Your task to perform on an android device: open app "Grab" (install if not already installed) and enter user name: "interspersion@gmail.com" and password: "aristocrats" Image 0: 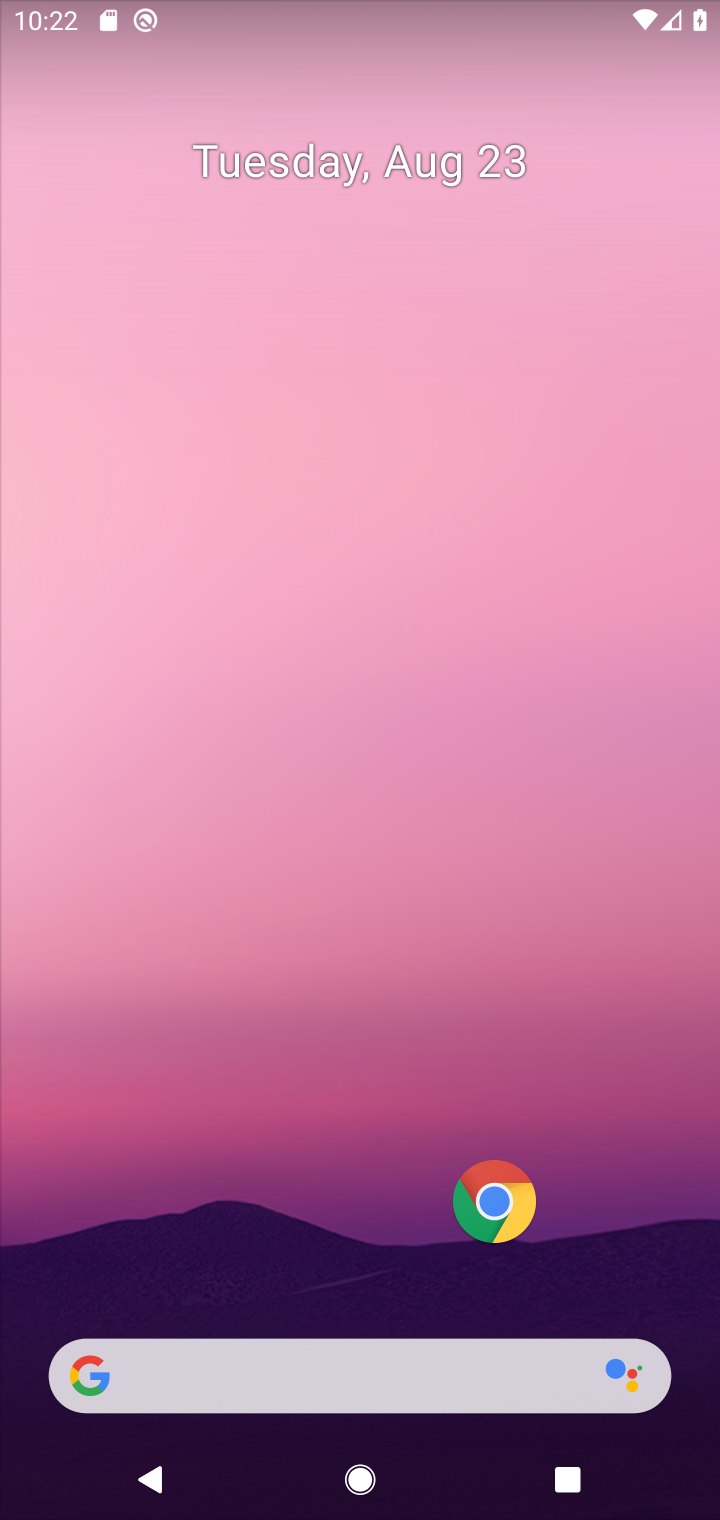
Step 0: drag from (458, 451) to (462, 378)
Your task to perform on an android device: open app "Grab" (install if not already installed) and enter user name: "interspersion@gmail.com" and password: "aristocrats" Image 1: 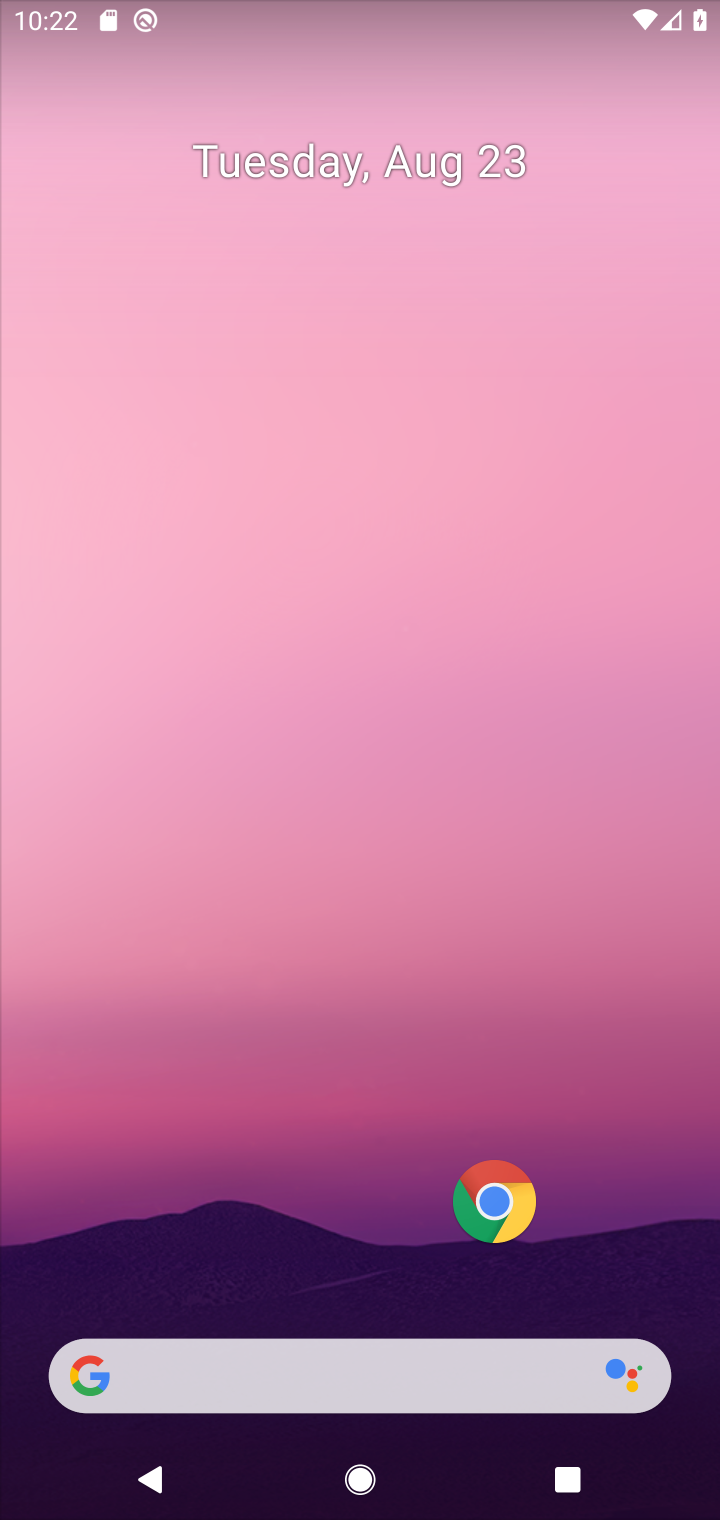
Step 1: drag from (224, 1265) to (262, 431)
Your task to perform on an android device: open app "Grab" (install if not already installed) and enter user name: "interspersion@gmail.com" and password: "aristocrats" Image 2: 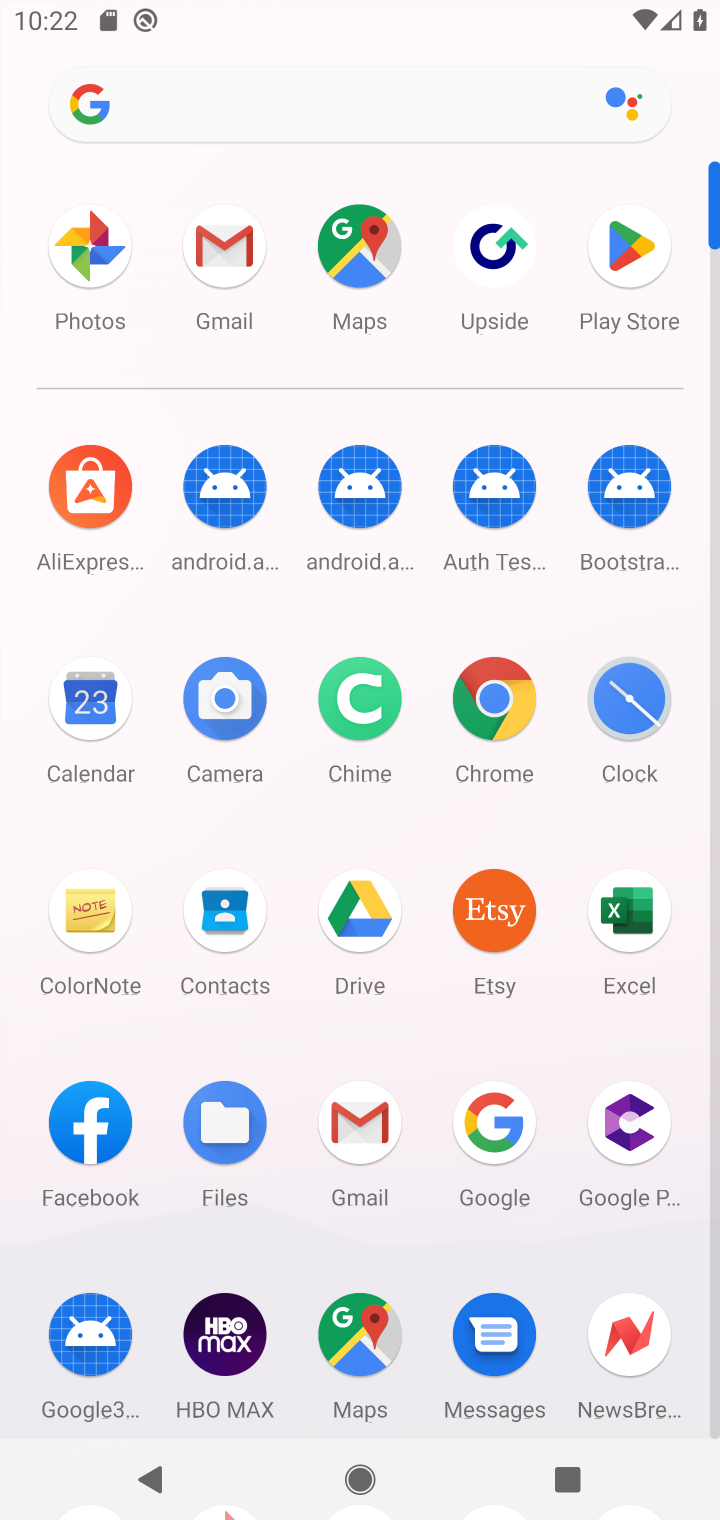
Step 2: click (612, 236)
Your task to perform on an android device: open app "Grab" (install if not already installed) and enter user name: "interspersion@gmail.com" and password: "aristocrats" Image 3: 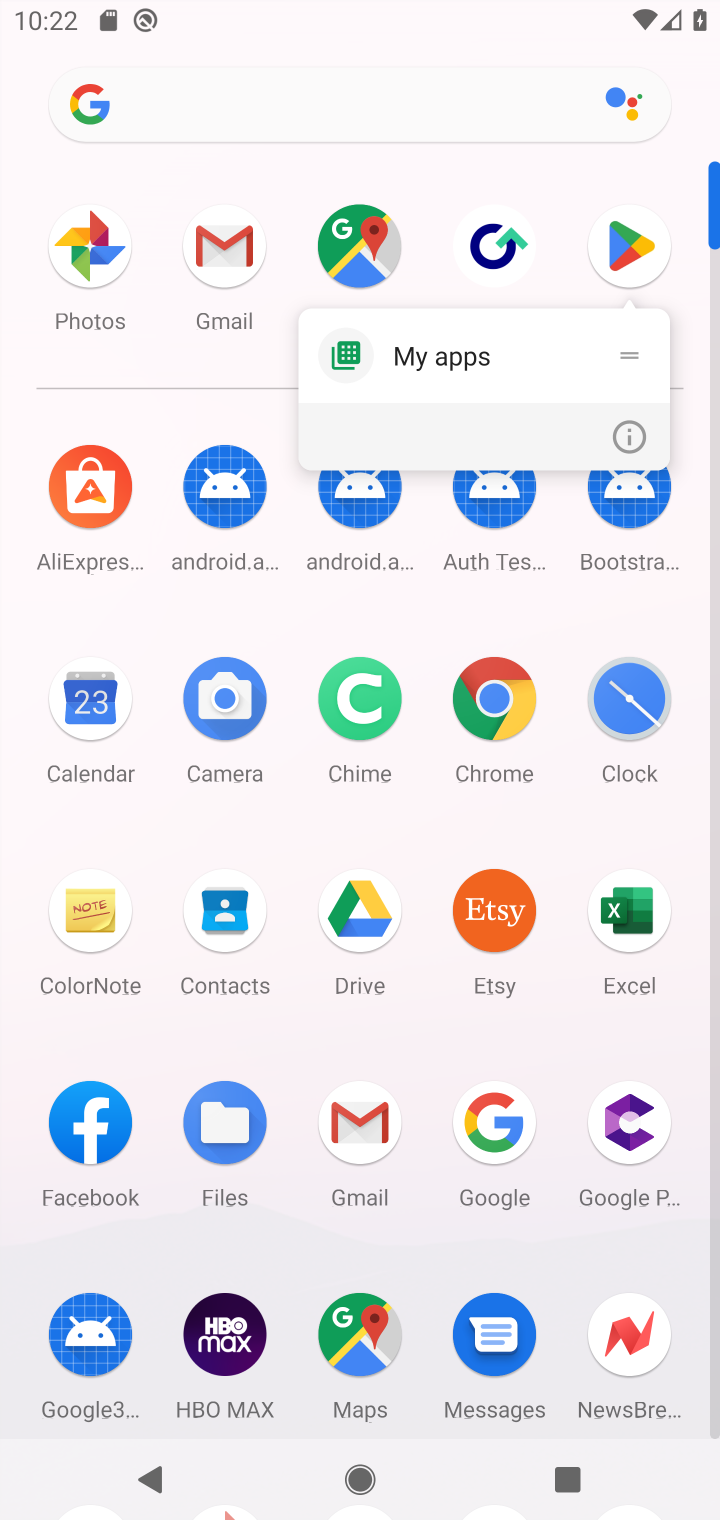
Step 3: click (642, 241)
Your task to perform on an android device: open app "Grab" (install if not already installed) and enter user name: "interspersion@gmail.com" and password: "aristocrats" Image 4: 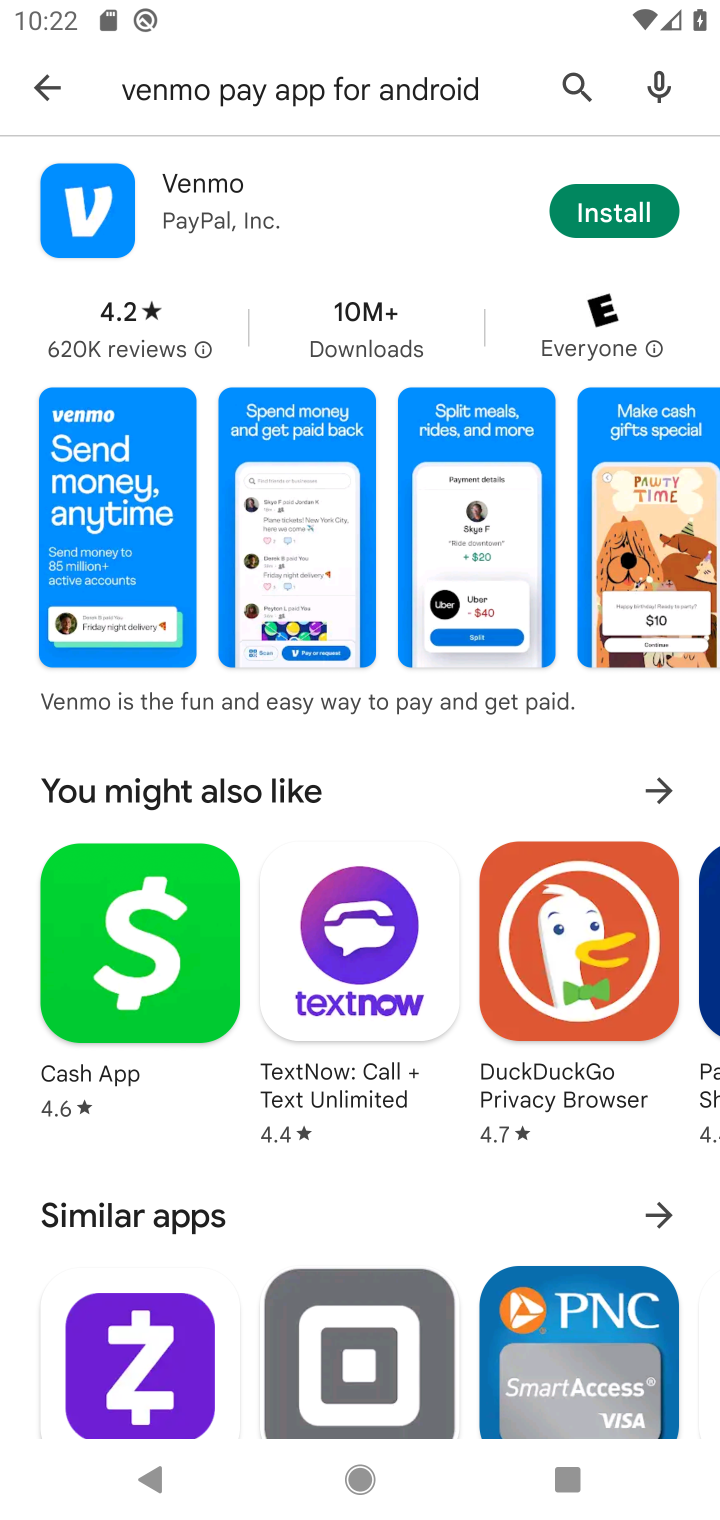
Step 4: click (66, 83)
Your task to perform on an android device: open app "Grab" (install if not already installed) and enter user name: "interspersion@gmail.com" and password: "aristocrats" Image 5: 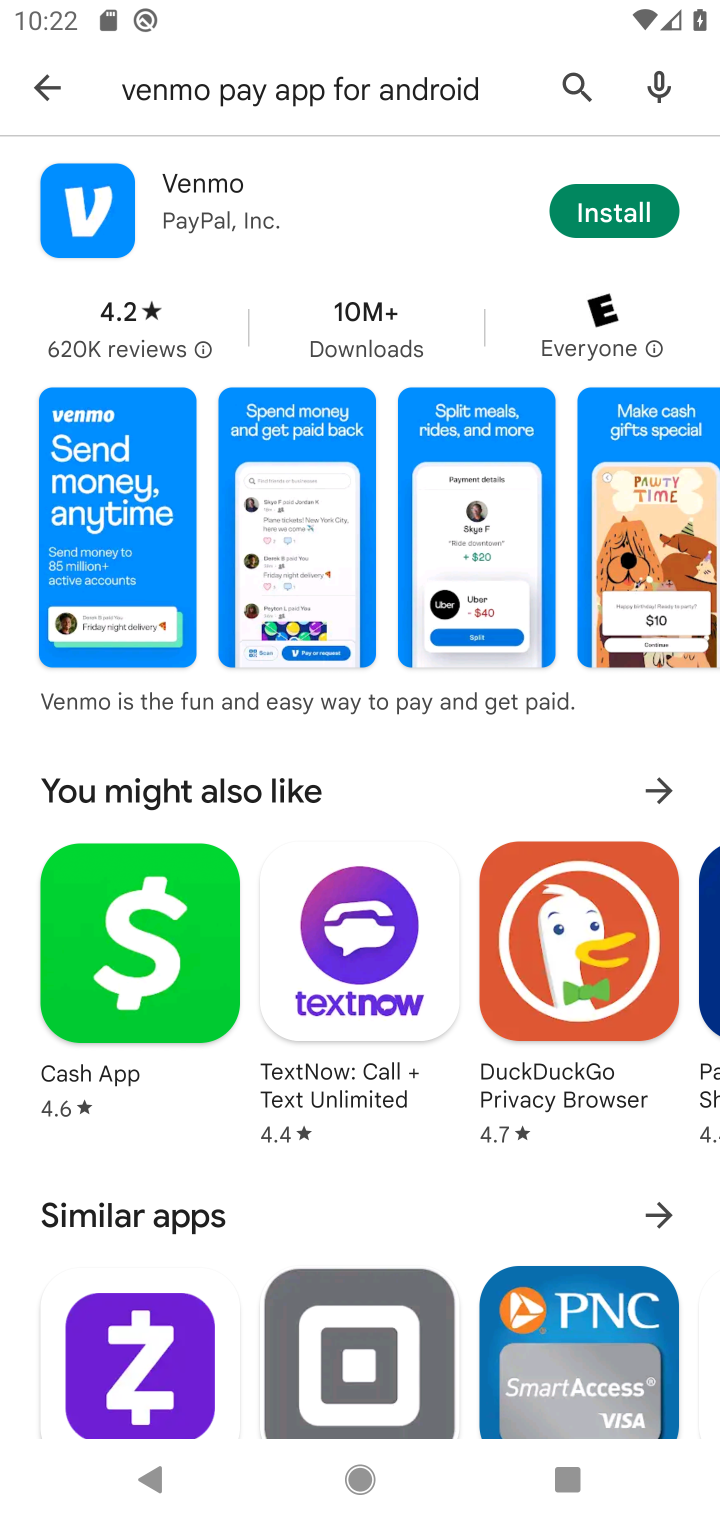
Step 5: click (573, 74)
Your task to perform on an android device: open app "Grab" (install if not already installed) and enter user name: "interspersion@gmail.com" and password: "aristocrats" Image 6: 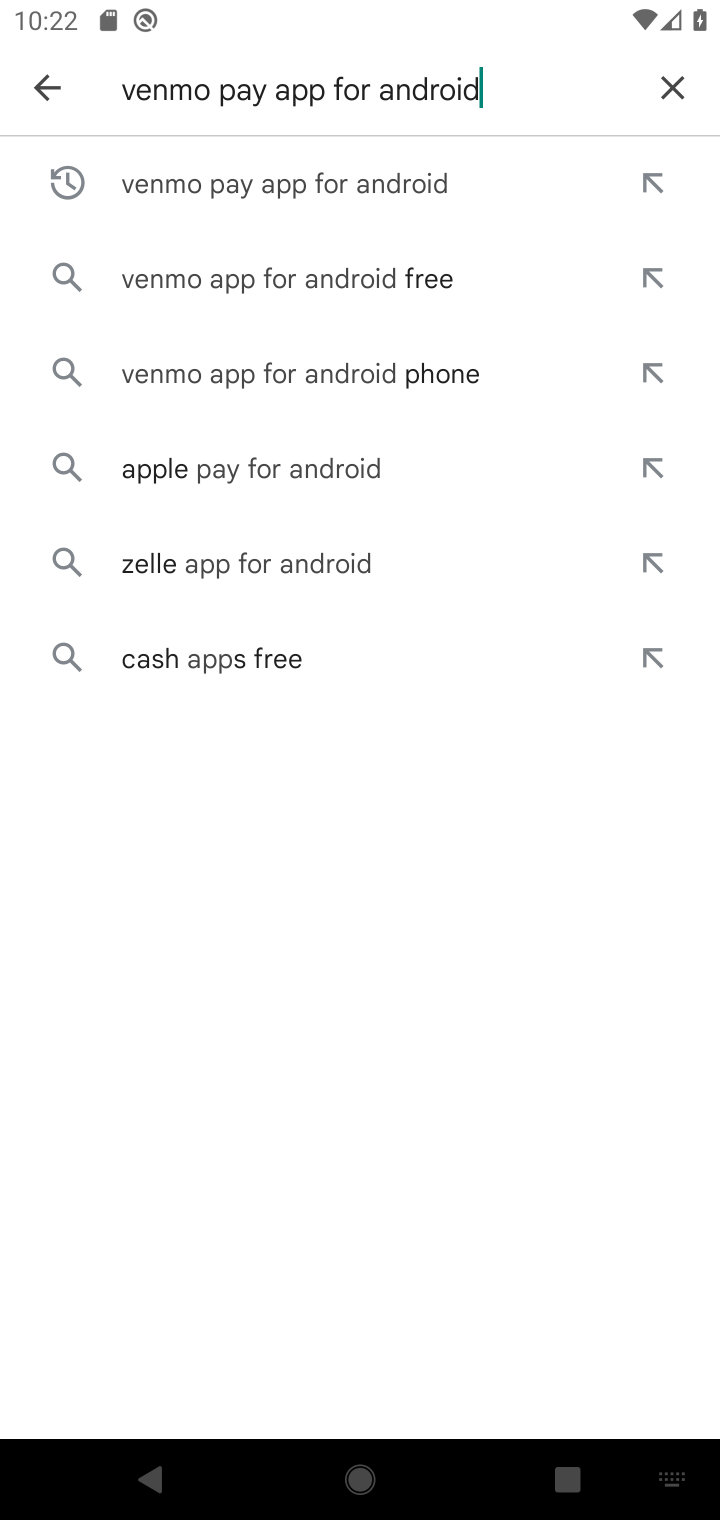
Step 6: click (675, 80)
Your task to perform on an android device: open app "Grab" (install if not already installed) and enter user name: "interspersion@gmail.com" and password: "aristocrats" Image 7: 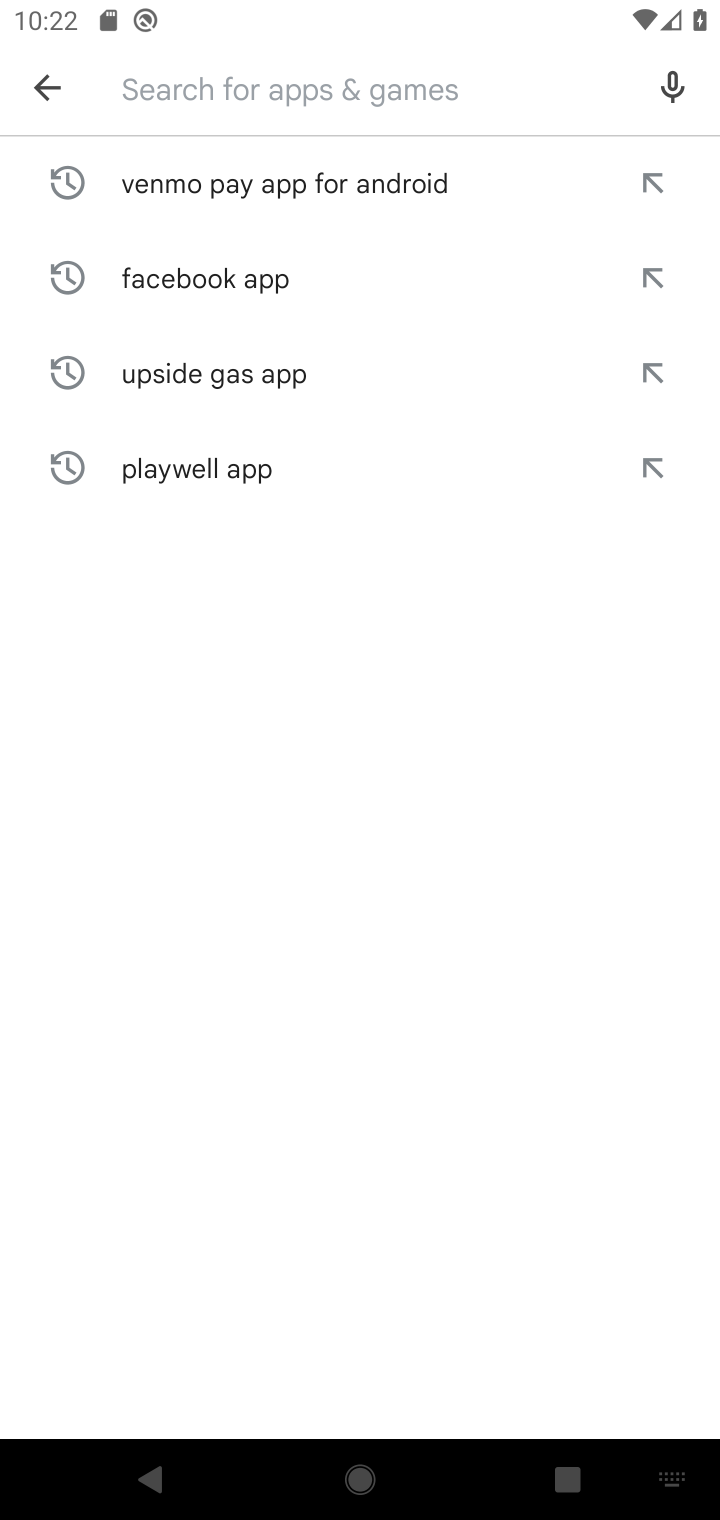
Step 7: click (340, 93)
Your task to perform on an android device: open app "Grab" (install if not already installed) and enter user name: "interspersion@gmail.com" and password: "aristocrats" Image 8: 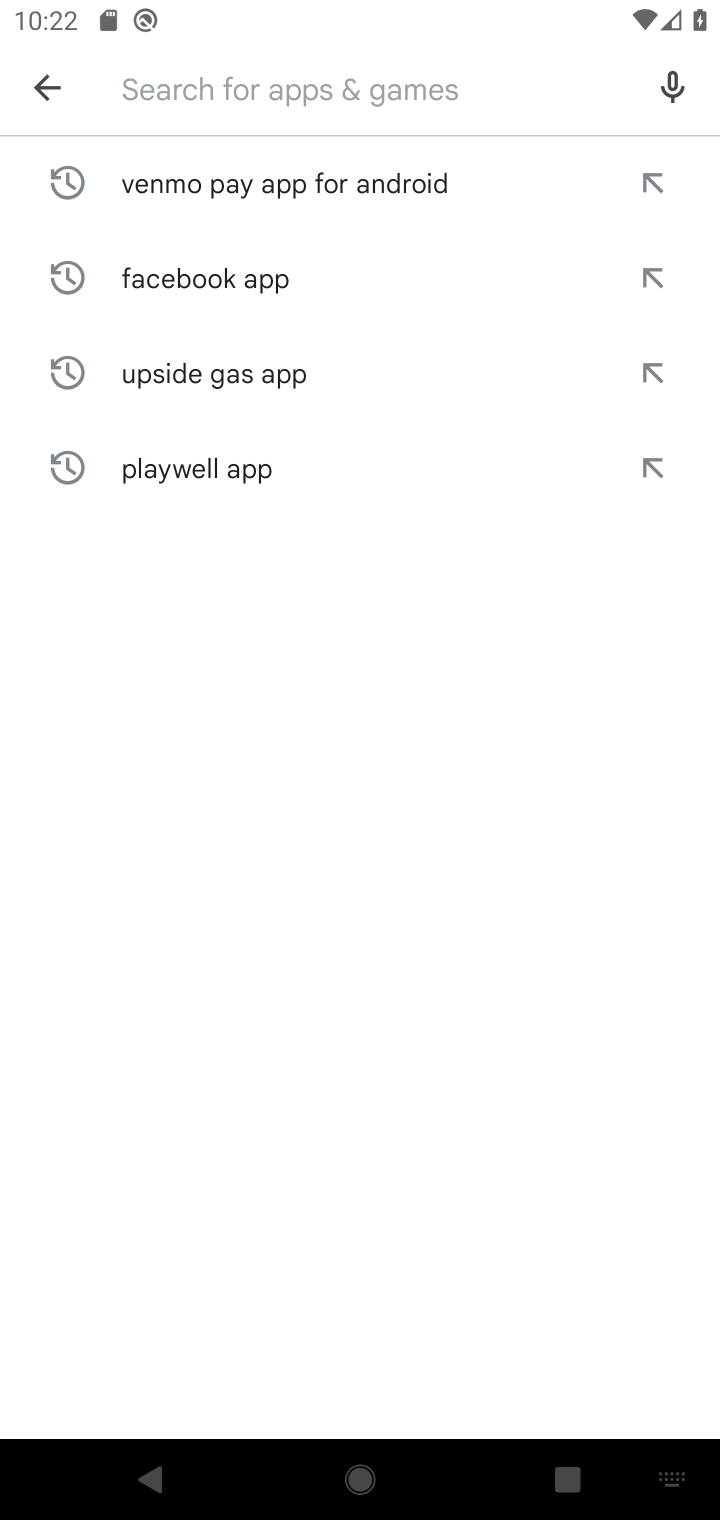
Step 8: type "Grab "
Your task to perform on an android device: open app "Grab" (install if not already installed) and enter user name: "interspersion@gmail.com" and password: "aristocrats" Image 9: 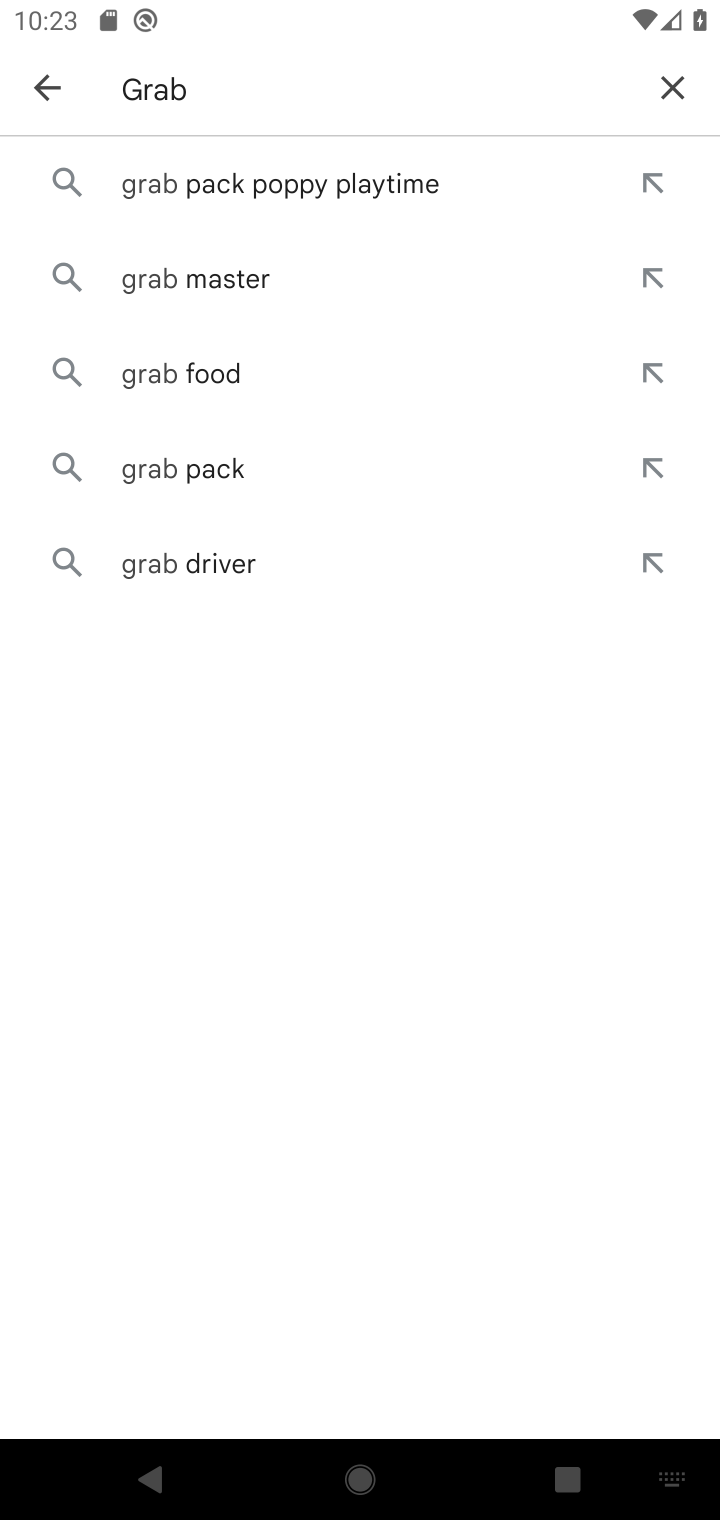
Step 9: click (258, 194)
Your task to perform on an android device: open app "Grab" (install if not already installed) and enter user name: "interspersion@gmail.com" and password: "aristocrats" Image 10: 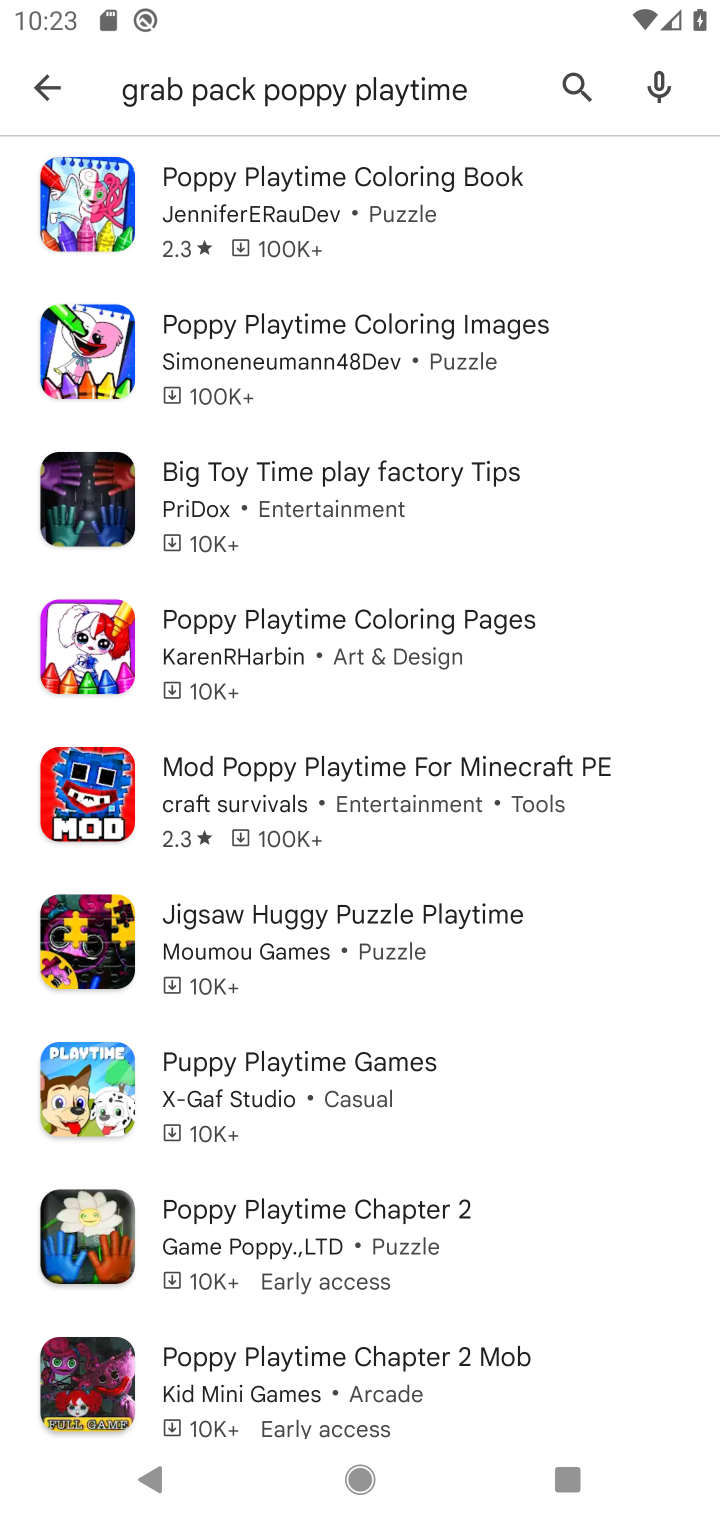
Step 10: task complete